Your task to perform on an android device: Open calendar and show me the third week of next month Image 0: 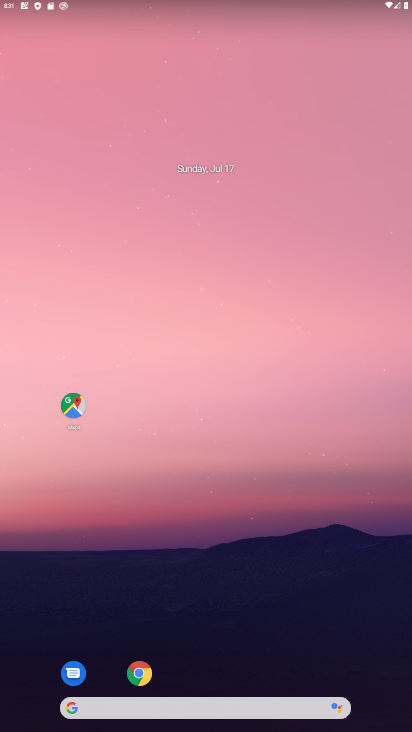
Step 0: drag from (198, 100) to (201, 64)
Your task to perform on an android device: Open calendar and show me the third week of next month Image 1: 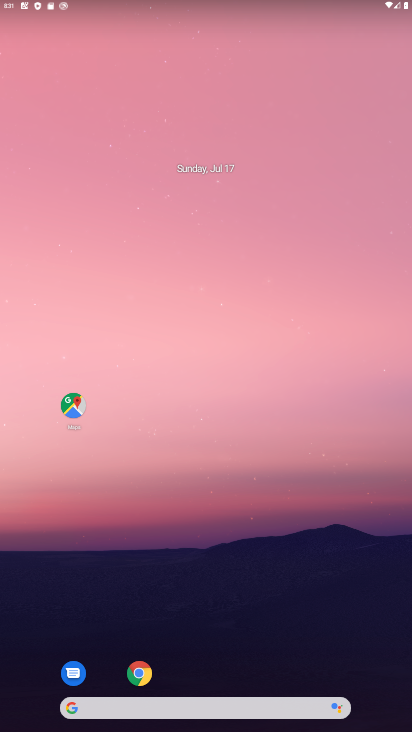
Step 1: drag from (256, 609) to (274, 183)
Your task to perform on an android device: Open calendar and show me the third week of next month Image 2: 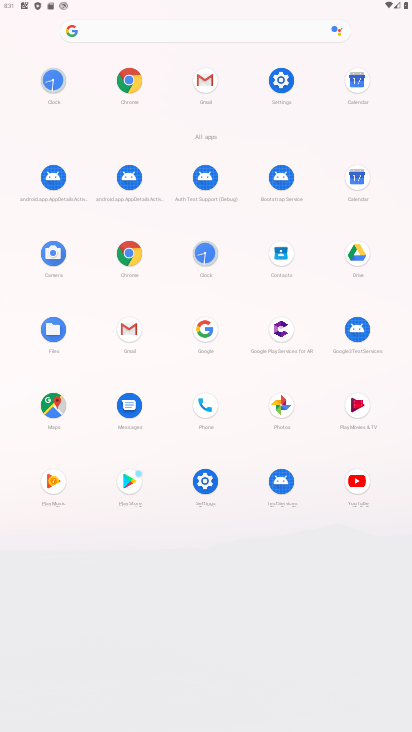
Step 2: click (358, 179)
Your task to perform on an android device: Open calendar and show me the third week of next month Image 3: 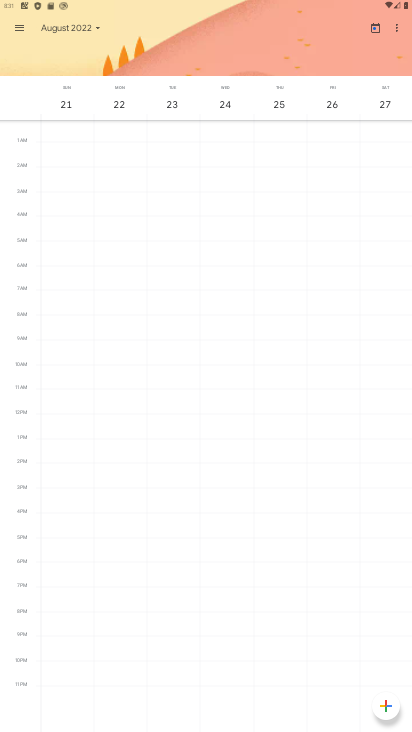
Step 3: click (75, 30)
Your task to perform on an android device: Open calendar and show me the third week of next month Image 4: 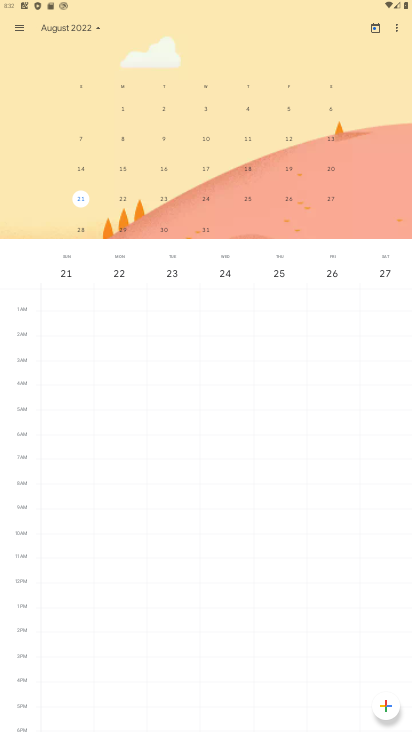
Step 4: click (177, 170)
Your task to perform on an android device: Open calendar and show me the third week of next month Image 5: 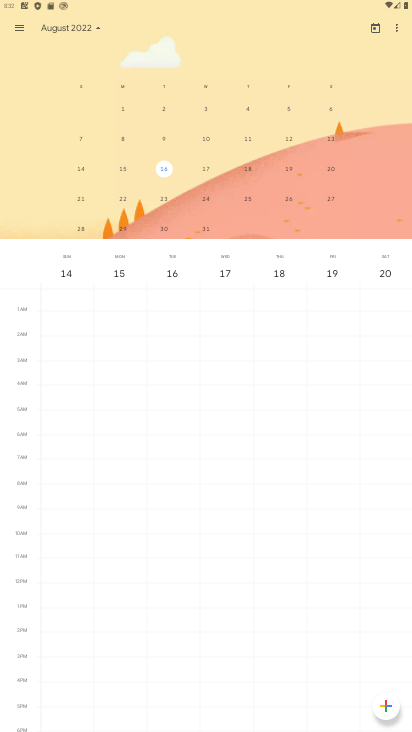
Step 5: click (162, 165)
Your task to perform on an android device: Open calendar and show me the third week of next month Image 6: 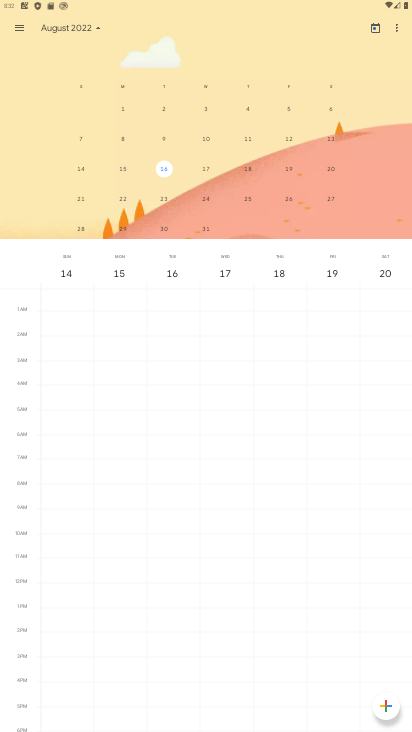
Step 6: click (162, 165)
Your task to perform on an android device: Open calendar and show me the third week of next month Image 7: 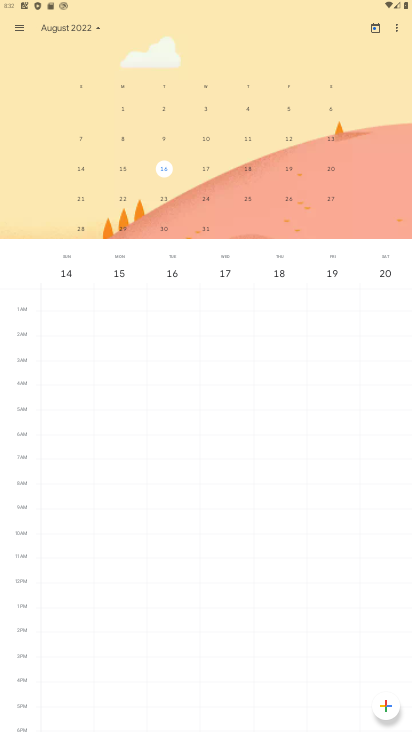
Step 7: task complete